Your task to perform on an android device: turn off location Image 0: 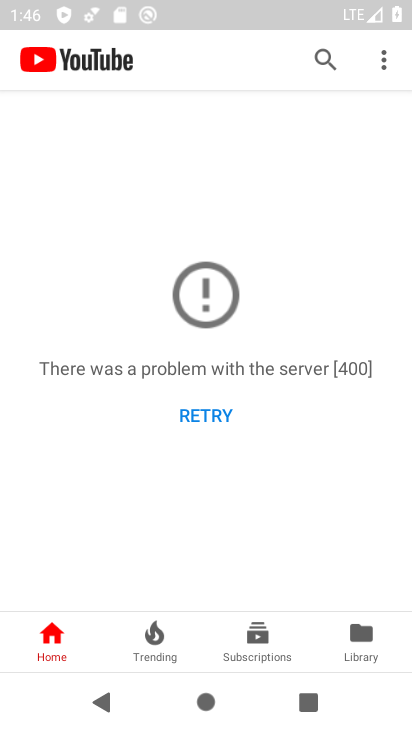
Step 0: drag from (295, 18) to (326, 656)
Your task to perform on an android device: turn off location Image 1: 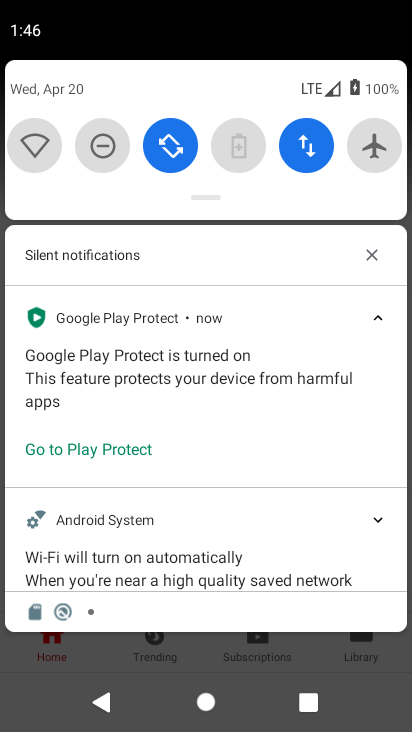
Step 1: drag from (285, 121) to (249, 698)
Your task to perform on an android device: turn off location Image 2: 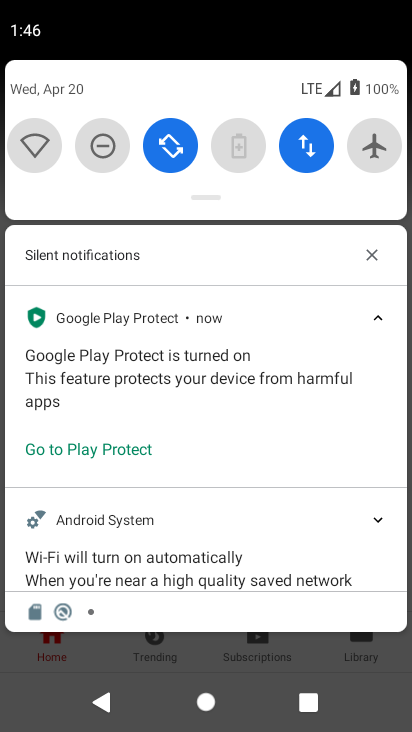
Step 2: drag from (238, 91) to (289, 616)
Your task to perform on an android device: turn off location Image 3: 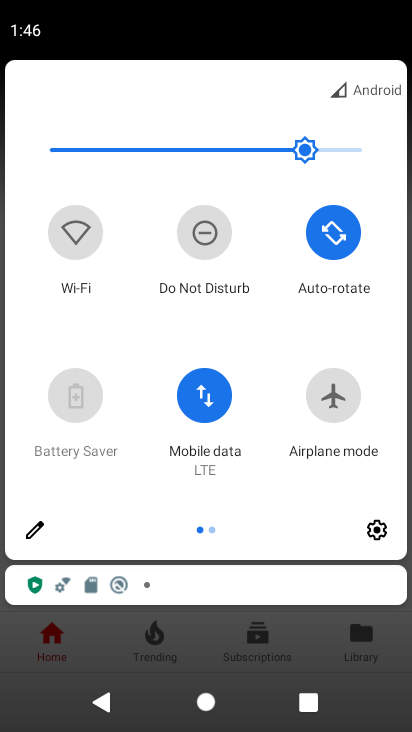
Step 3: click (377, 529)
Your task to perform on an android device: turn off location Image 4: 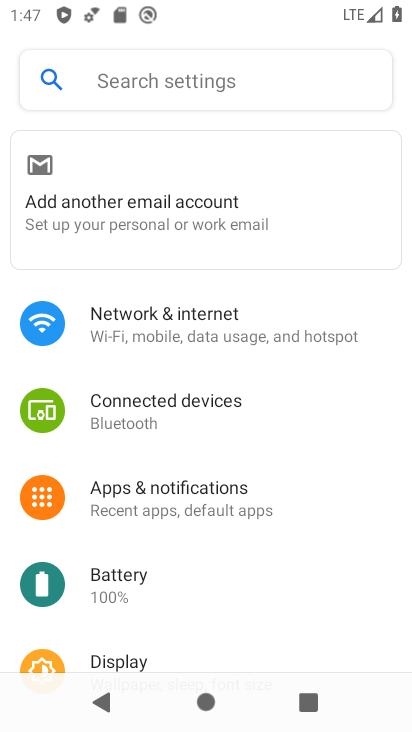
Step 4: drag from (245, 544) to (187, 163)
Your task to perform on an android device: turn off location Image 5: 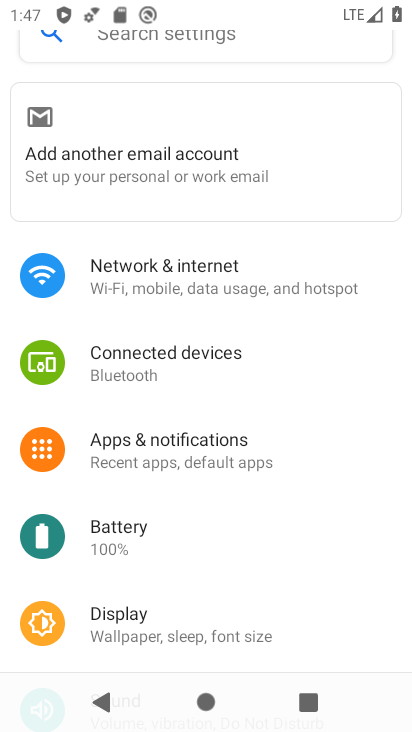
Step 5: drag from (149, 578) to (203, 209)
Your task to perform on an android device: turn off location Image 6: 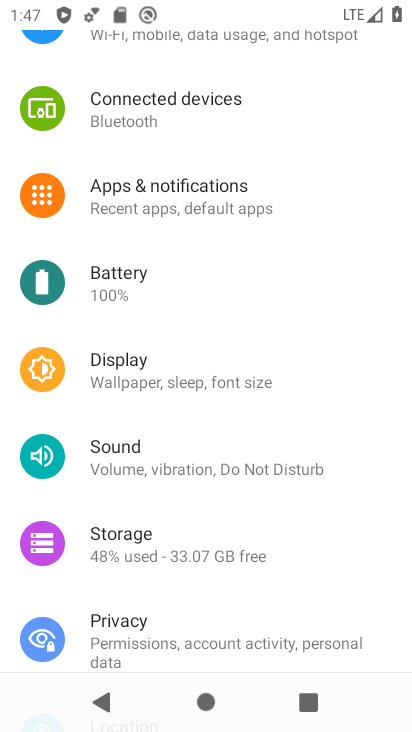
Step 6: drag from (97, 552) to (208, 110)
Your task to perform on an android device: turn off location Image 7: 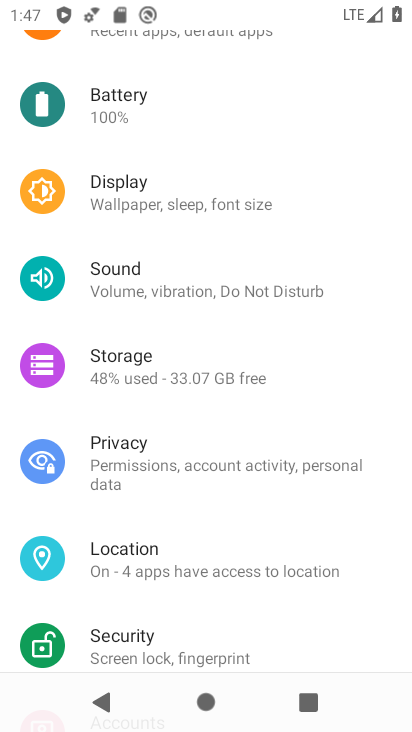
Step 7: click (149, 554)
Your task to perform on an android device: turn off location Image 8: 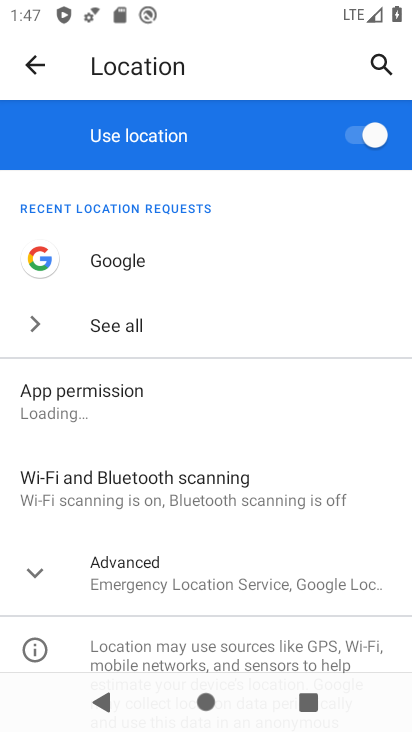
Step 8: click (357, 141)
Your task to perform on an android device: turn off location Image 9: 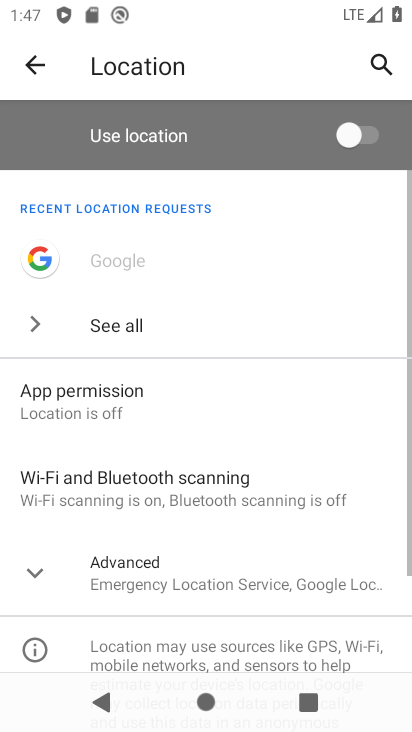
Step 9: task complete